Your task to perform on an android device: change your default location settings in chrome Image 0: 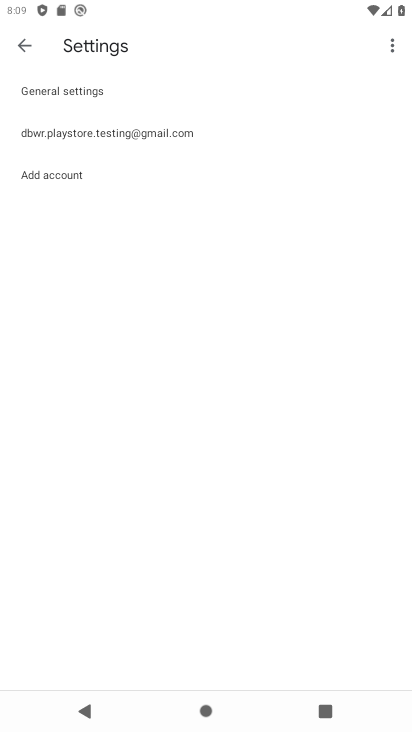
Step 0: press home button
Your task to perform on an android device: change your default location settings in chrome Image 1: 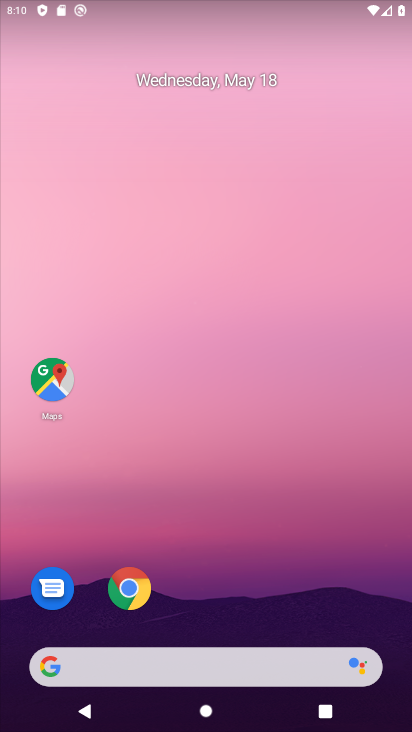
Step 1: click (141, 593)
Your task to perform on an android device: change your default location settings in chrome Image 2: 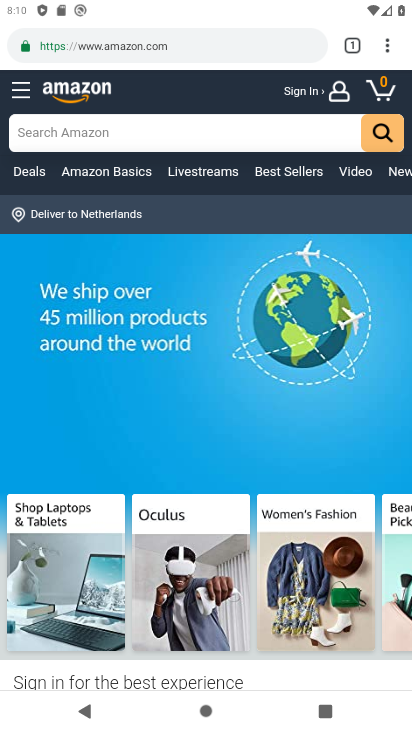
Step 2: click (388, 47)
Your task to perform on an android device: change your default location settings in chrome Image 3: 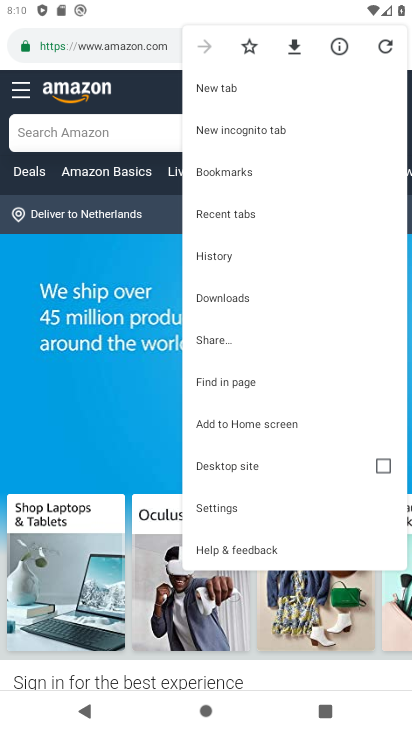
Step 3: click (218, 510)
Your task to perform on an android device: change your default location settings in chrome Image 4: 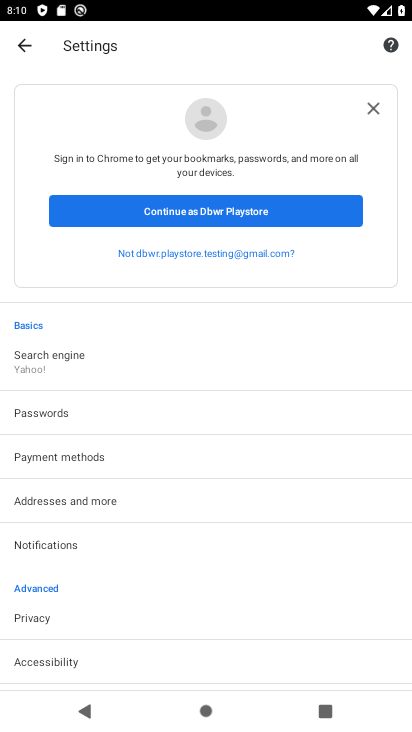
Step 4: drag from (292, 577) to (256, 211)
Your task to perform on an android device: change your default location settings in chrome Image 5: 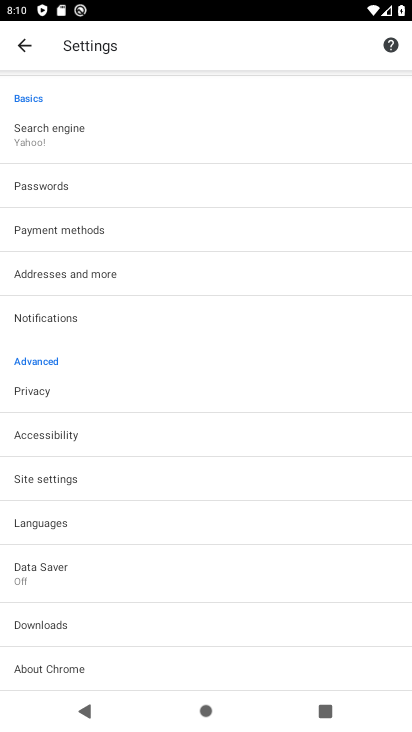
Step 5: click (44, 480)
Your task to perform on an android device: change your default location settings in chrome Image 6: 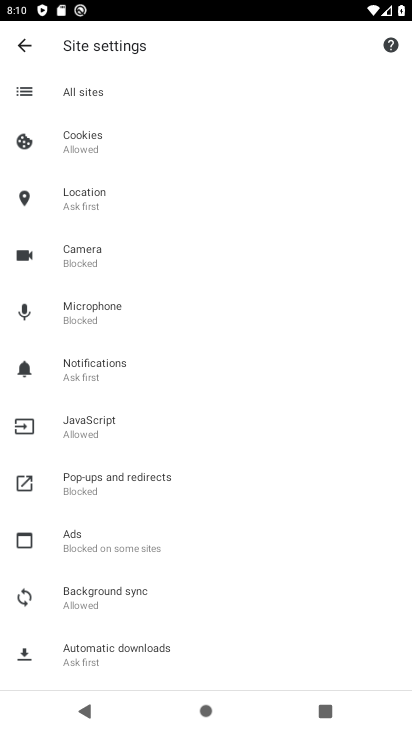
Step 6: click (67, 201)
Your task to perform on an android device: change your default location settings in chrome Image 7: 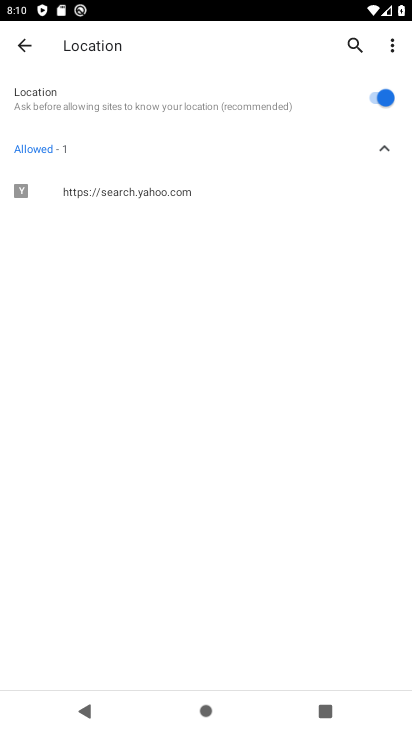
Step 7: click (386, 103)
Your task to perform on an android device: change your default location settings in chrome Image 8: 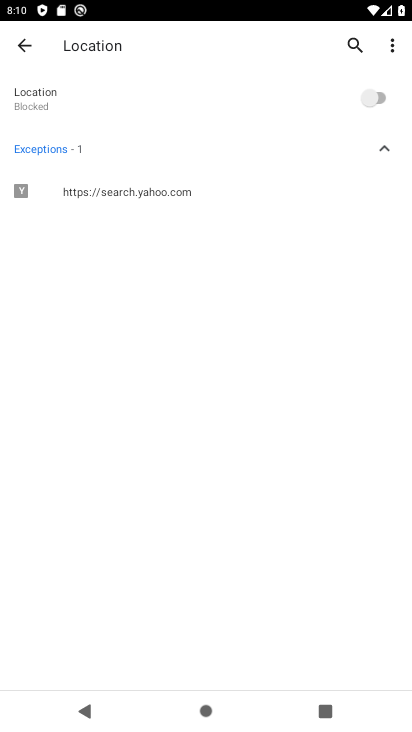
Step 8: task complete